Your task to perform on an android device: check storage Image 0: 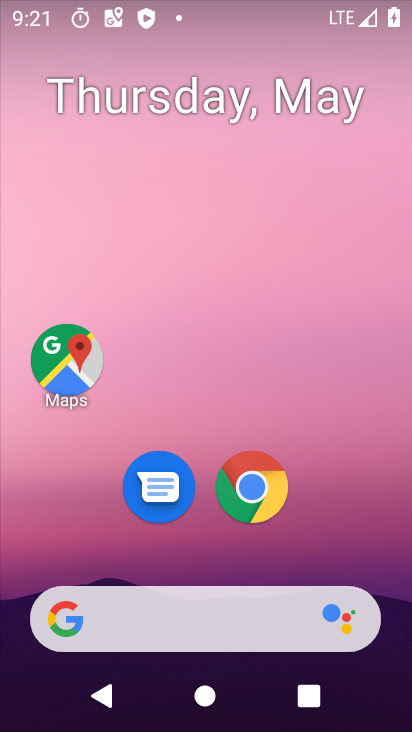
Step 0: drag from (255, 642) to (292, 162)
Your task to perform on an android device: check storage Image 1: 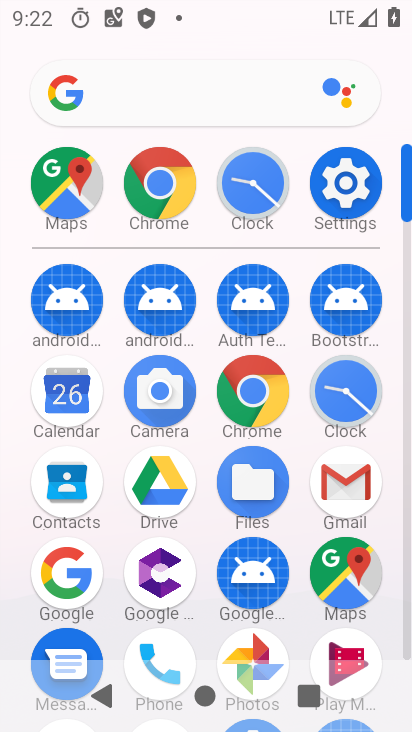
Step 1: click (364, 205)
Your task to perform on an android device: check storage Image 2: 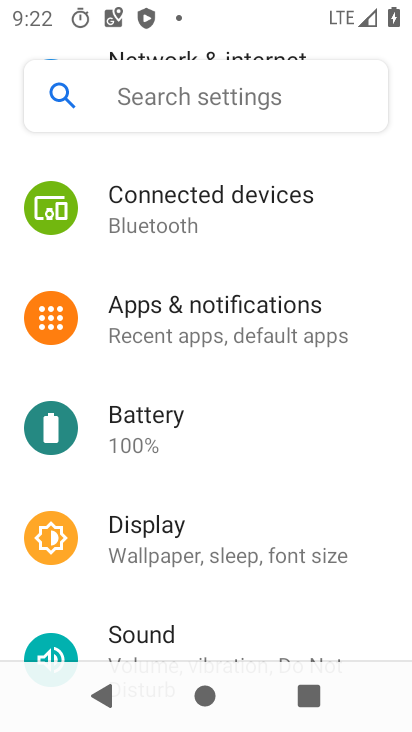
Step 2: drag from (201, 546) to (293, 206)
Your task to perform on an android device: check storage Image 3: 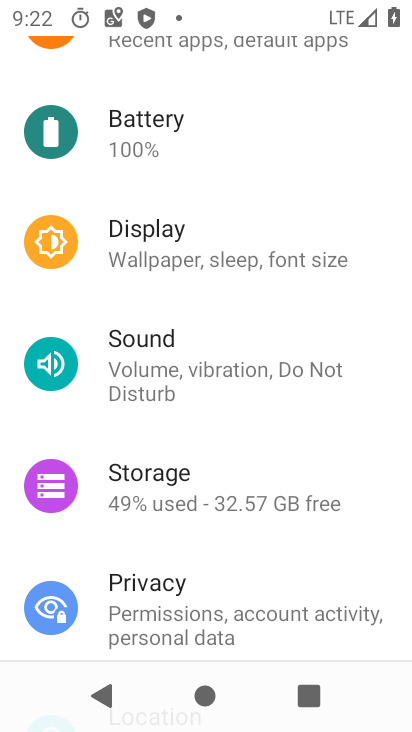
Step 3: click (210, 490)
Your task to perform on an android device: check storage Image 4: 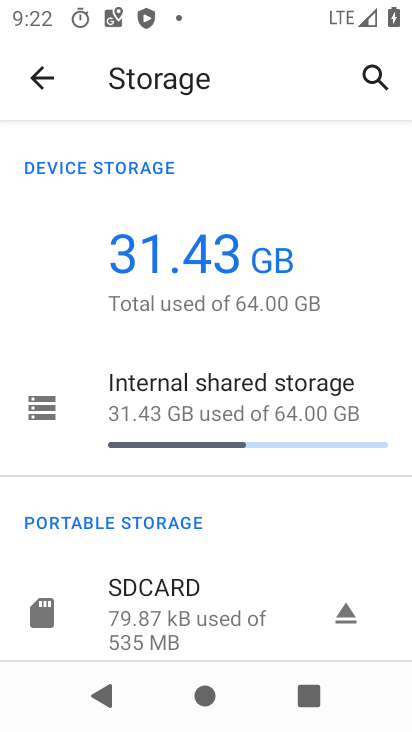
Step 4: click (236, 414)
Your task to perform on an android device: check storage Image 5: 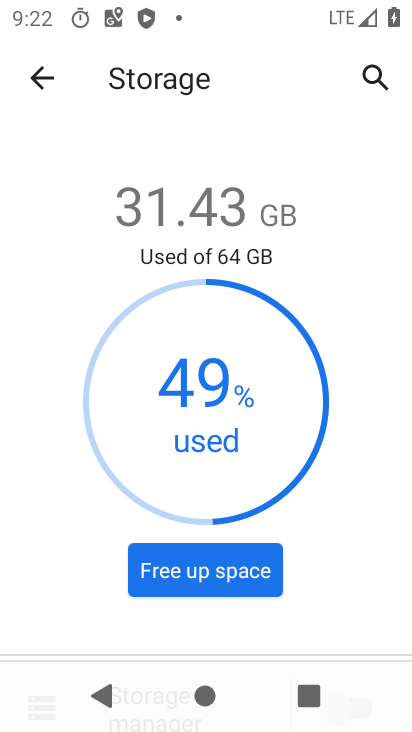
Step 5: task complete